Your task to perform on an android device: Do I have any events tomorrow? Image 0: 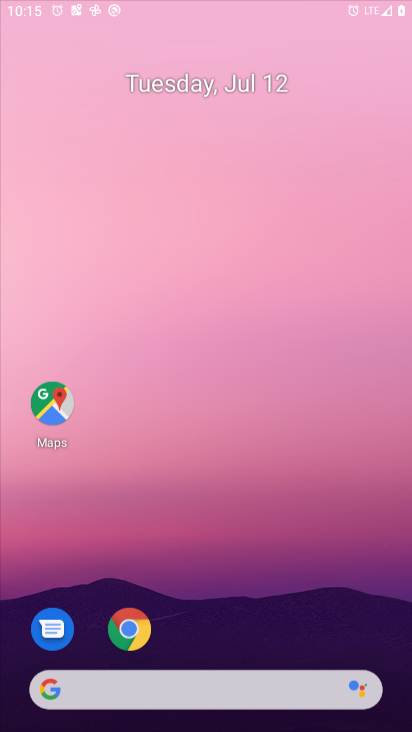
Step 0: click (341, 6)
Your task to perform on an android device: Do I have any events tomorrow? Image 1: 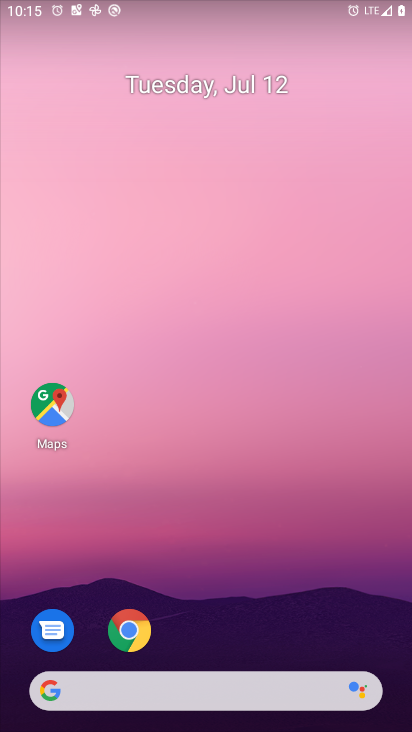
Step 1: press home button
Your task to perform on an android device: Do I have any events tomorrow? Image 2: 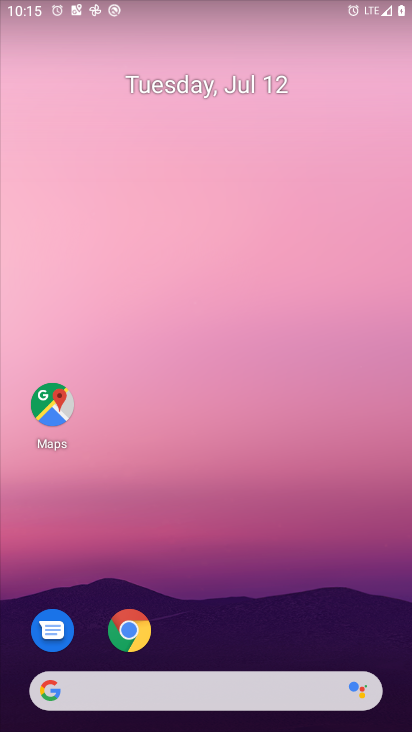
Step 2: drag from (287, 621) to (234, 72)
Your task to perform on an android device: Do I have any events tomorrow? Image 3: 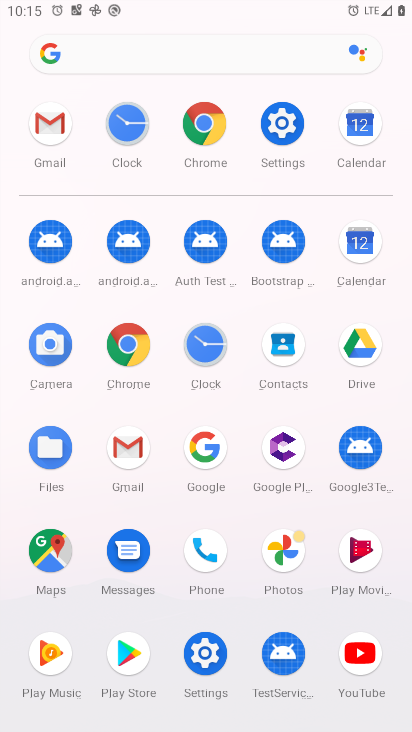
Step 3: click (356, 243)
Your task to perform on an android device: Do I have any events tomorrow? Image 4: 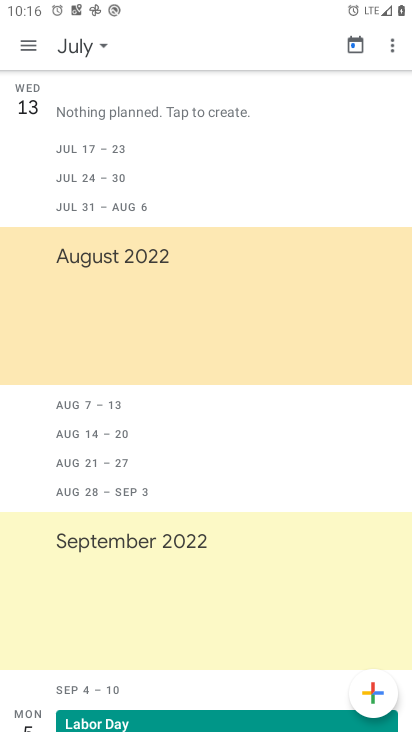
Step 4: click (34, 47)
Your task to perform on an android device: Do I have any events tomorrow? Image 5: 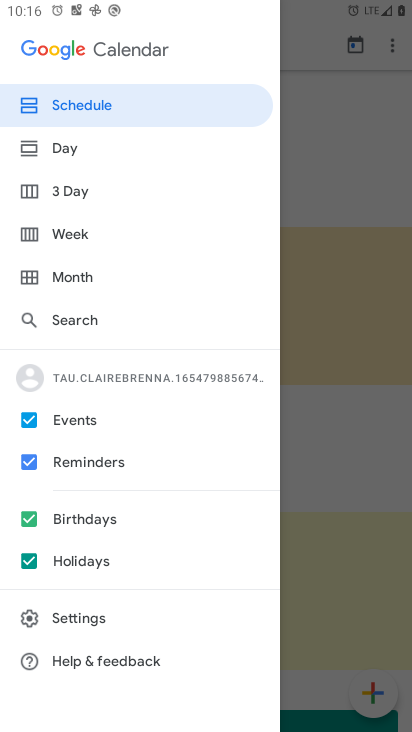
Step 5: click (98, 97)
Your task to perform on an android device: Do I have any events tomorrow? Image 6: 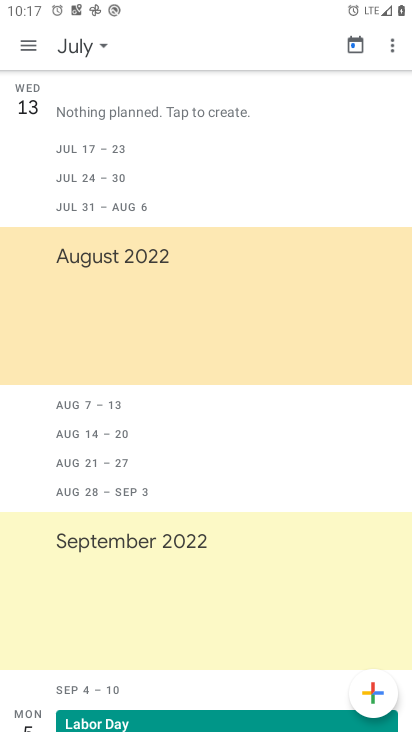
Step 6: task complete